Your task to perform on an android device: turn on translation in the chrome app Image 0: 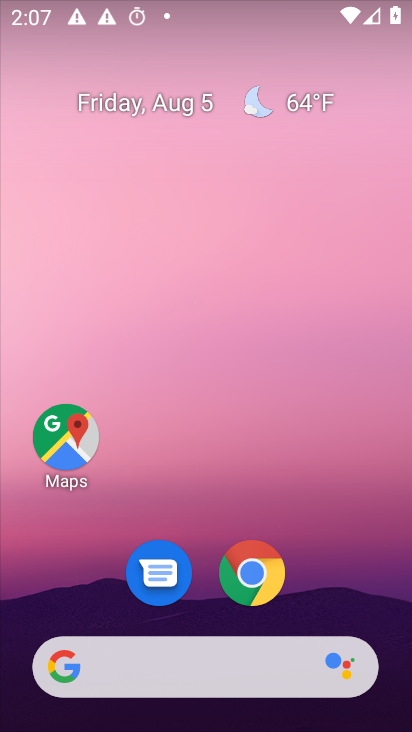
Step 0: drag from (362, 585) to (346, 180)
Your task to perform on an android device: turn on translation in the chrome app Image 1: 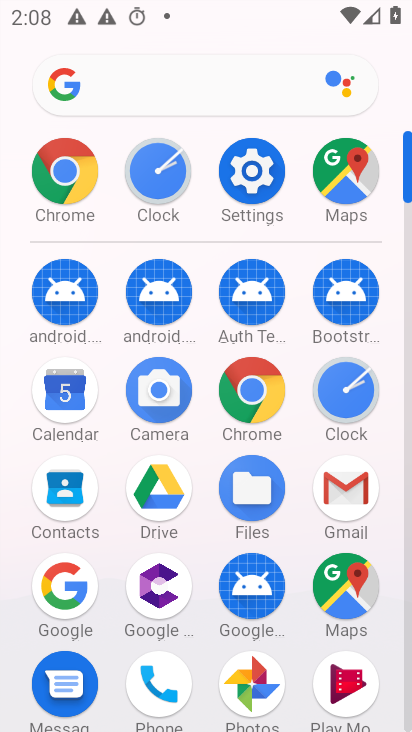
Step 1: click (257, 386)
Your task to perform on an android device: turn on translation in the chrome app Image 2: 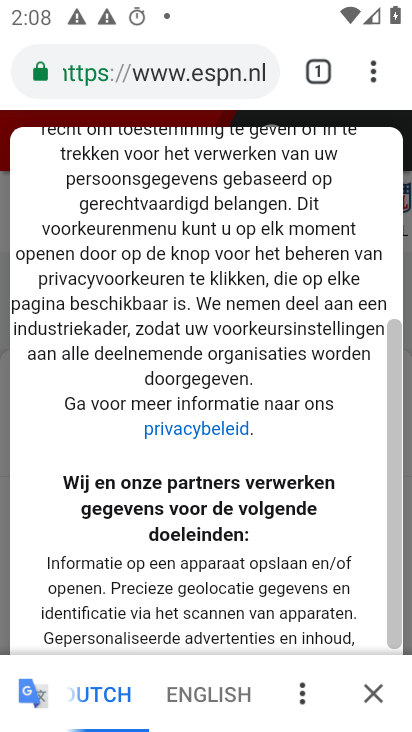
Step 2: click (373, 76)
Your task to perform on an android device: turn on translation in the chrome app Image 3: 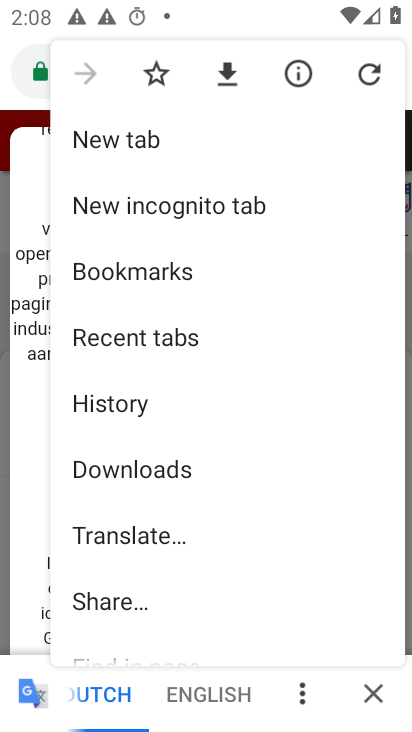
Step 3: drag from (341, 401) to (329, 281)
Your task to perform on an android device: turn on translation in the chrome app Image 4: 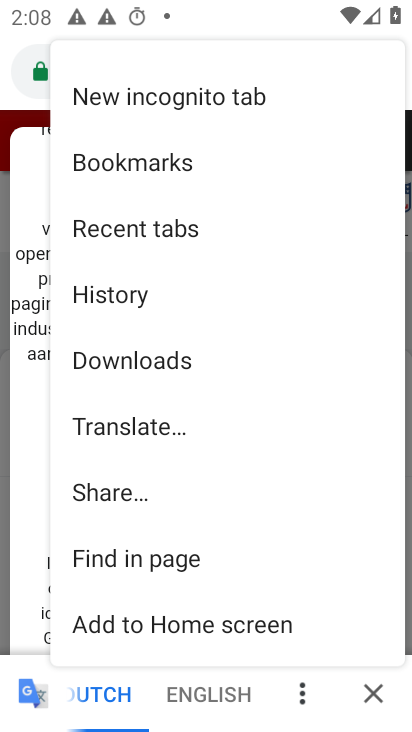
Step 4: drag from (297, 471) to (290, 346)
Your task to perform on an android device: turn on translation in the chrome app Image 5: 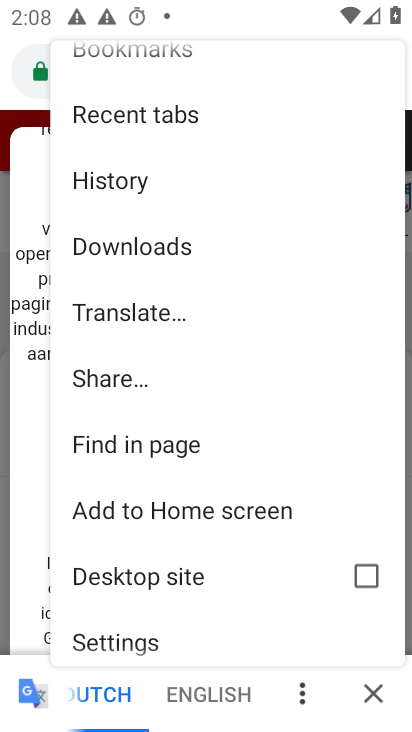
Step 5: drag from (265, 492) to (261, 410)
Your task to perform on an android device: turn on translation in the chrome app Image 6: 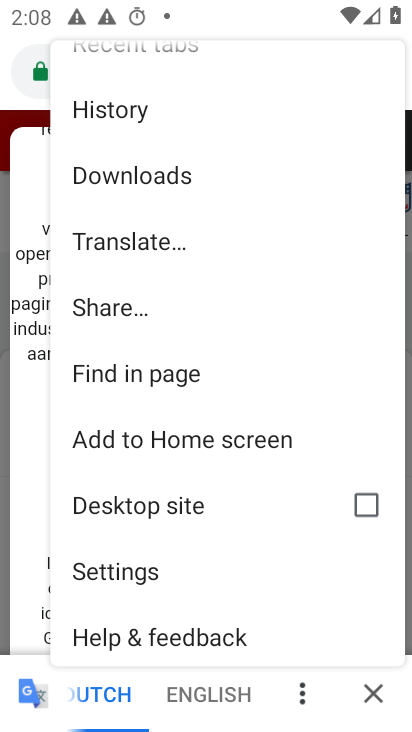
Step 6: click (244, 564)
Your task to perform on an android device: turn on translation in the chrome app Image 7: 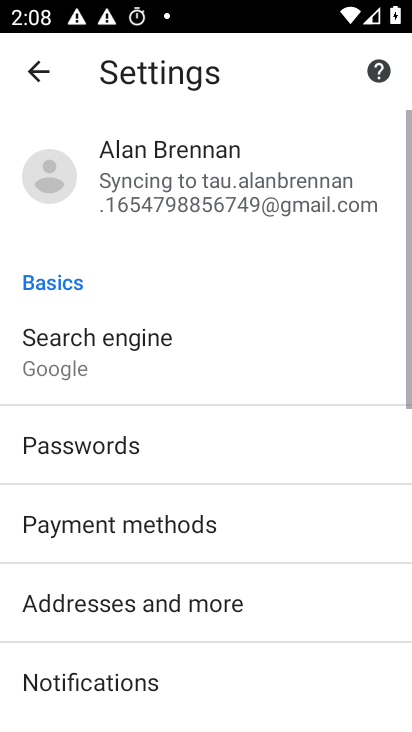
Step 7: drag from (245, 565) to (253, 450)
Your task to perform on an android device: turn on translation in the chrome app Image 8: 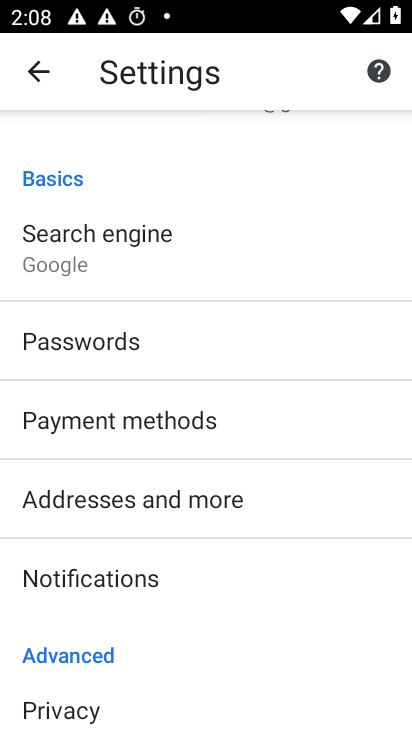
Step 8: drag from (287, 580) to (300, 466)
Your task to perform on an android device: turn on translation in the chrome app Image 9: 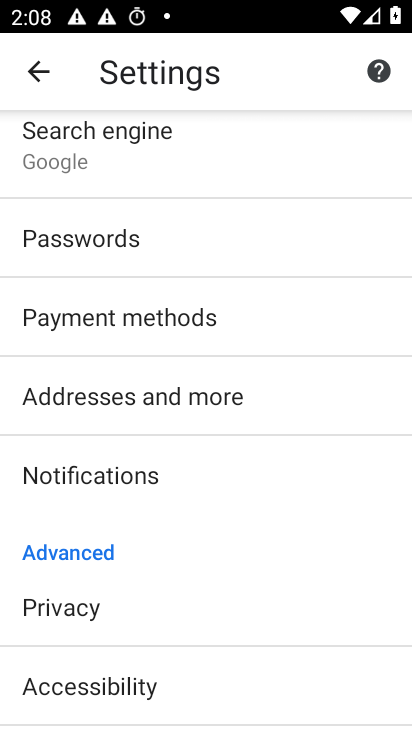
Step 9: drag from (304, 602) to (305, 499)
Your task to perform on an android device: turn on translation in the chrome app Image 10: 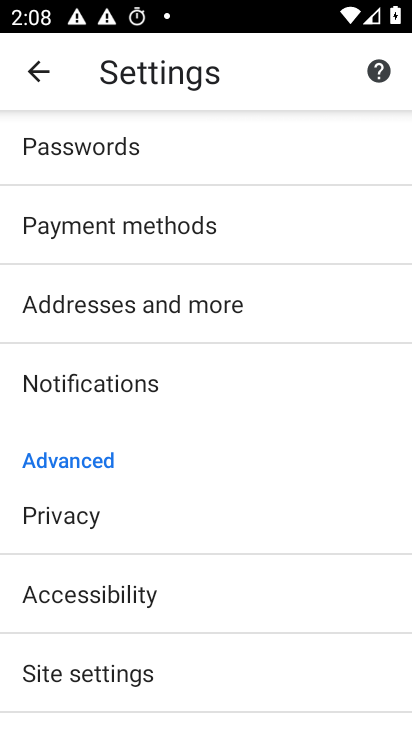
Step 10: drag from (305, 603) to (308, 488)
Your task to perform on an android device: turn on translation in the chrome app Image 11: 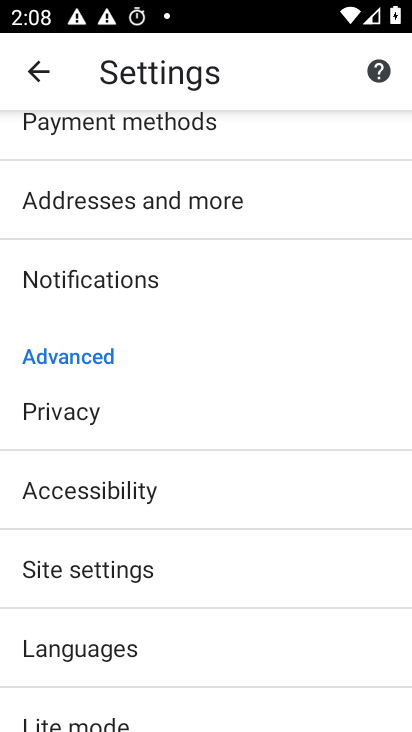
Step 11: drag from (297, 624) to (295, 499)
Your task to perform on an android device: turn on translation in the chrome app Image 12: 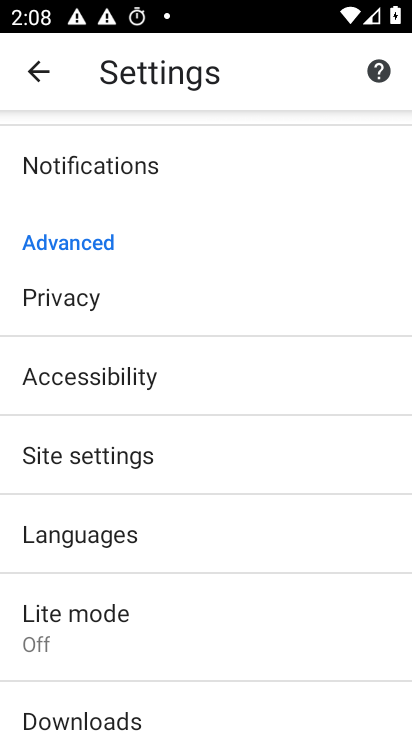
Step 12: click (259, 544)
Your task to perform on an android device: turn on translation in the chrome app Image 13: 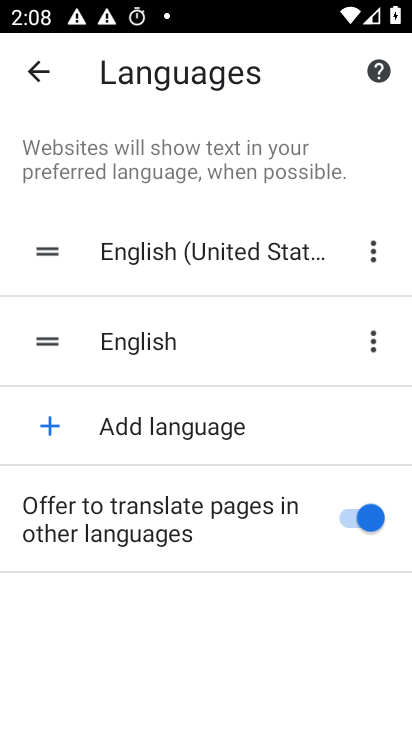
Step 13: task complete